Your task to perform on an android device: toggle data saver in the chrome app Image 0: 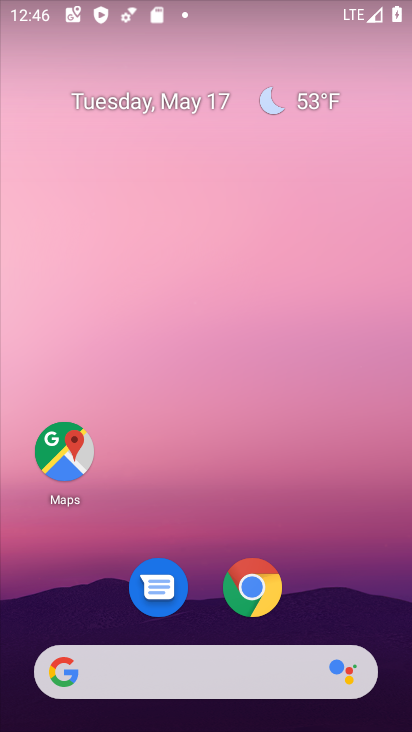
Step 0: drag from (224, 625) to (223, 7)
Your task to perform on an android device: toggle data saver in the chrome app Image 1: 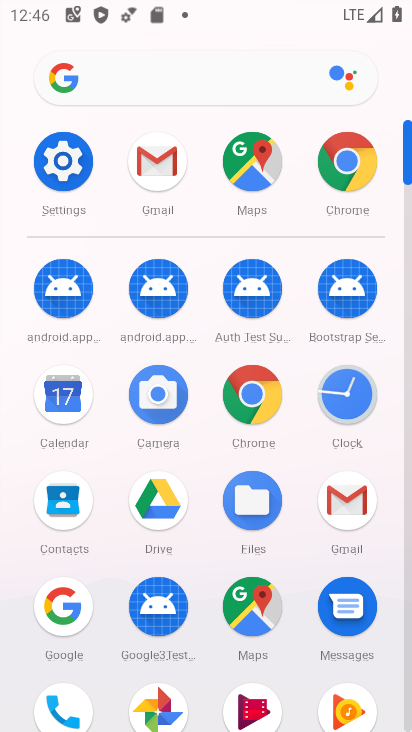
Step 1: click (251, 396)
Your task to perform on an android device: toggle data saver in the chrome app Image 2: 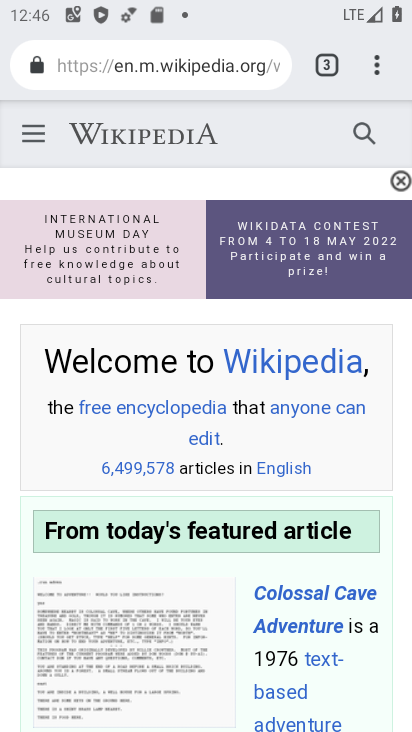
Step 2: click (374, 69)
Your task to perform on an android device: toggle data saver in the chrome app Image 3: 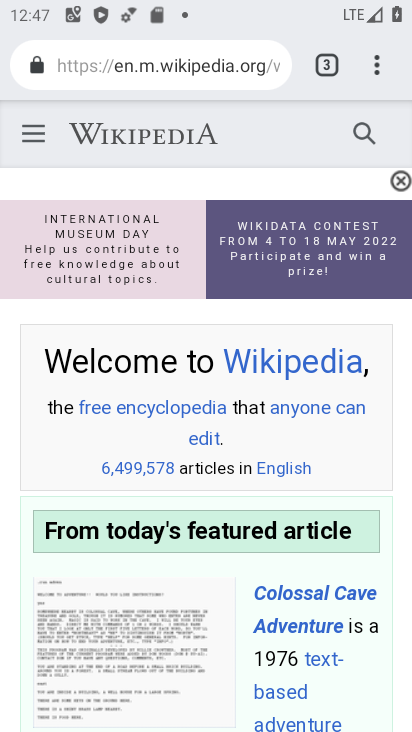
Step 3: click (378, 70)
Your task to perform on an android device: toggle data saver in the chrome app Image 4: 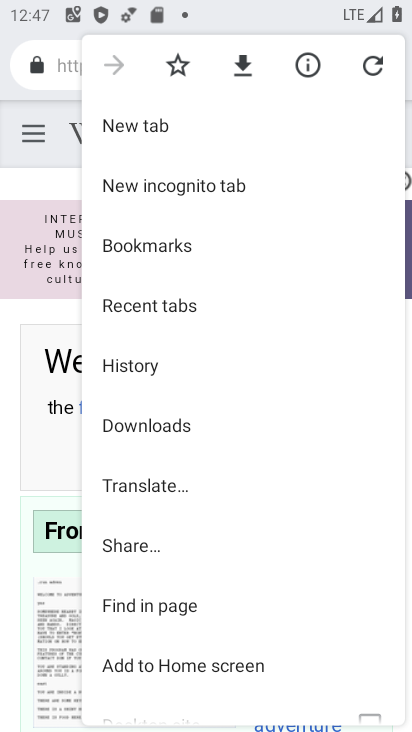
Step 4: drag from (275, 610) to (268, 262)
Your task to perform on an android device: toggle data saver in the chrome app Image 5: 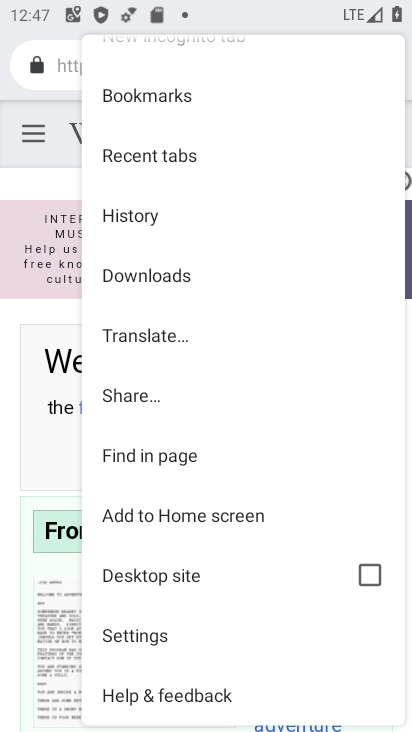
Step 5: click (152, 637)
Your task to perform on an android device: toggle data saver in the chrome app Image 6: 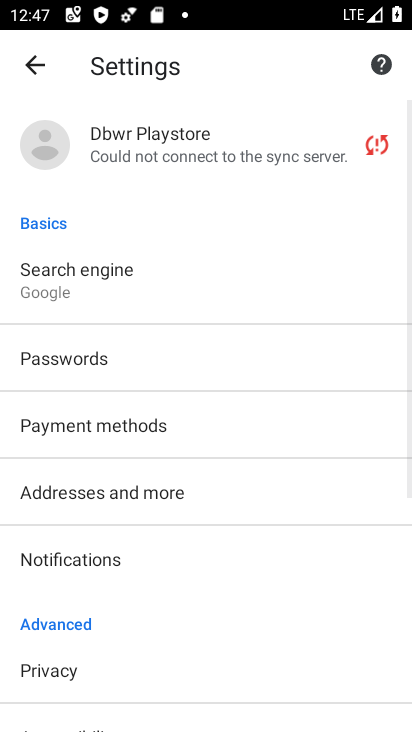
Step 6: drag from (161, 625) to (141, 181)
Your task to perform on an android device: toggle data saver in the chrome app Image 7: 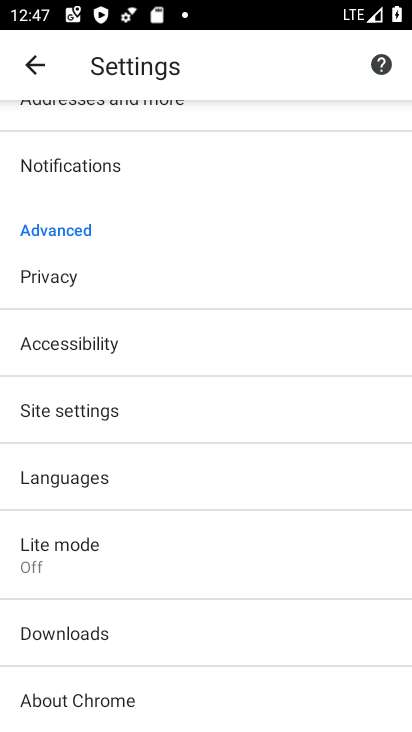
Step 7: click (82, 537)
Your task to perform on an android device: toggle data saver in the chrome app Image 8: 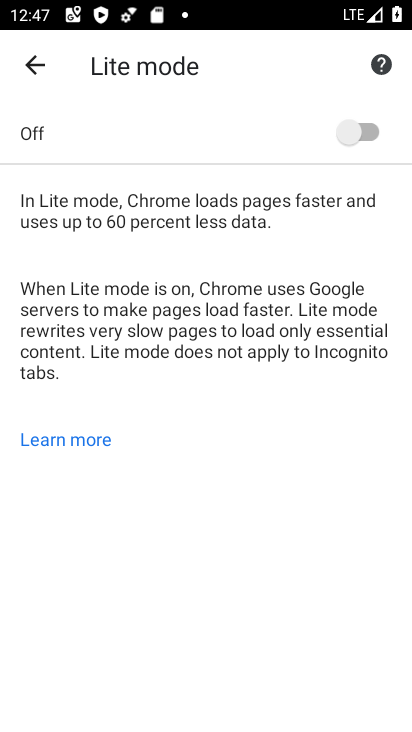
Step 8: click (360, 127)
Your task to perform on an android device: toggle data saver in the chrome app Image 9: 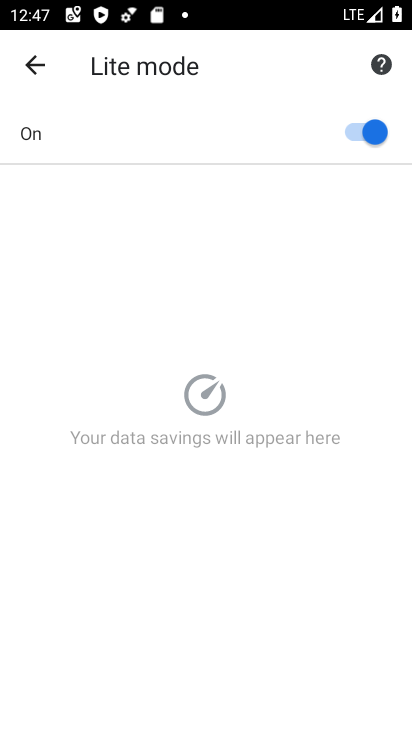
Step 9: task complete